Your task to perform on an android device: Search for vintage wall art on Etsy. Image 0: 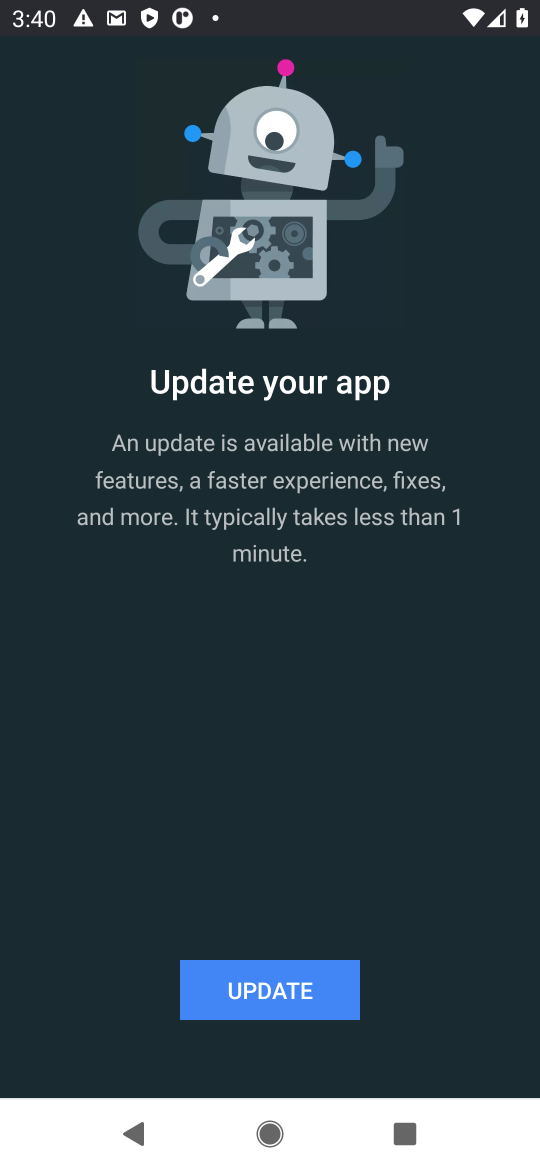
Step 0: press home button
Your task to perform on an android device: Search for vintage wall art on Etsy. Image 1: 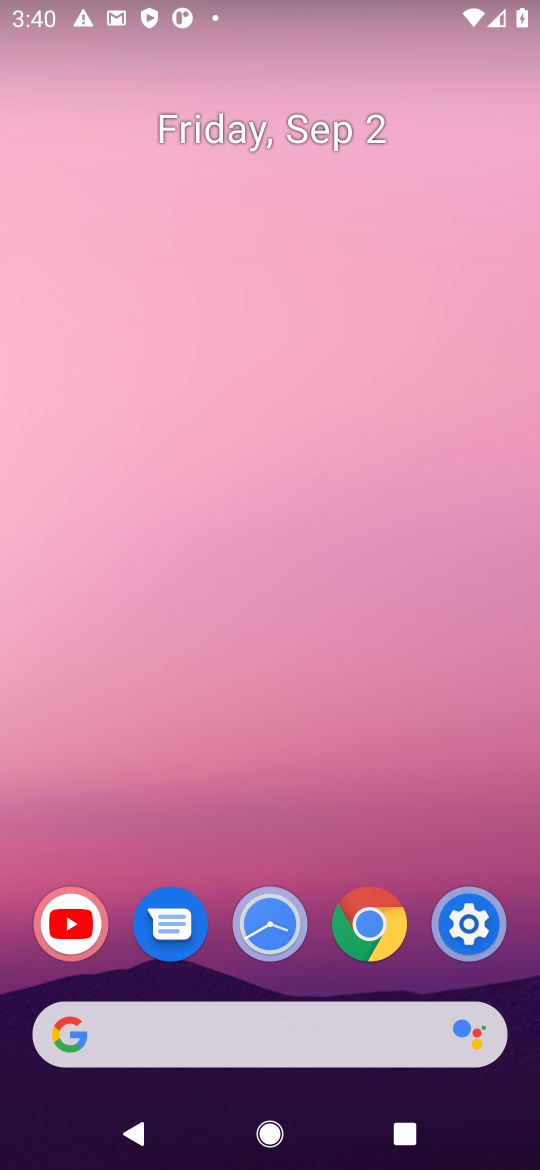
Step 1: click (338, 1040)
Your task to perform on an android device: Search for vintage wall art on Etsy. Image 2: 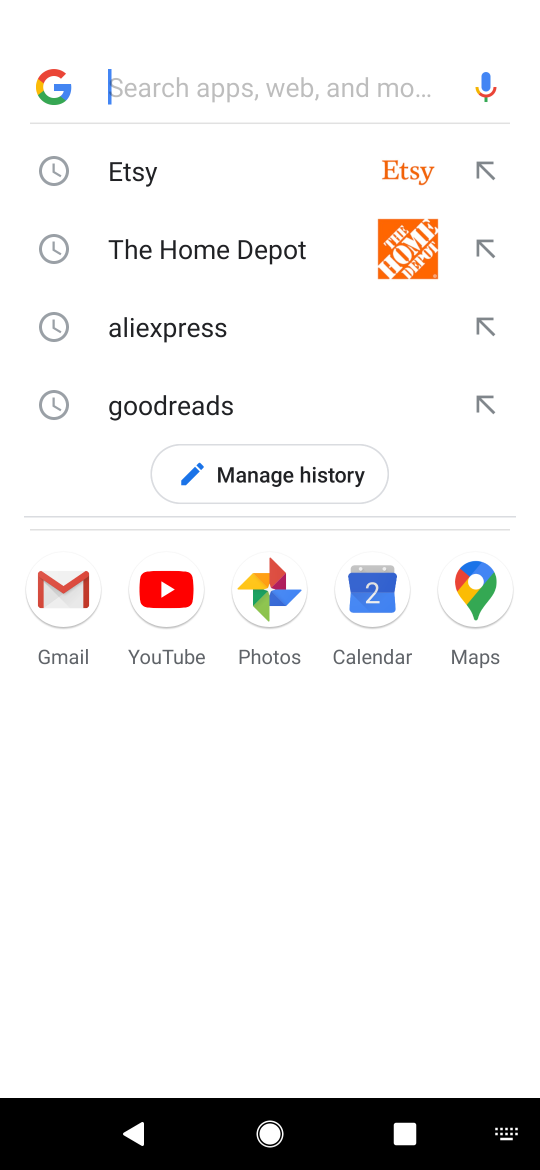
Step 2: press enter
Your task to perform on an android device: Search for vintage wall art on Etsy. Image 3: 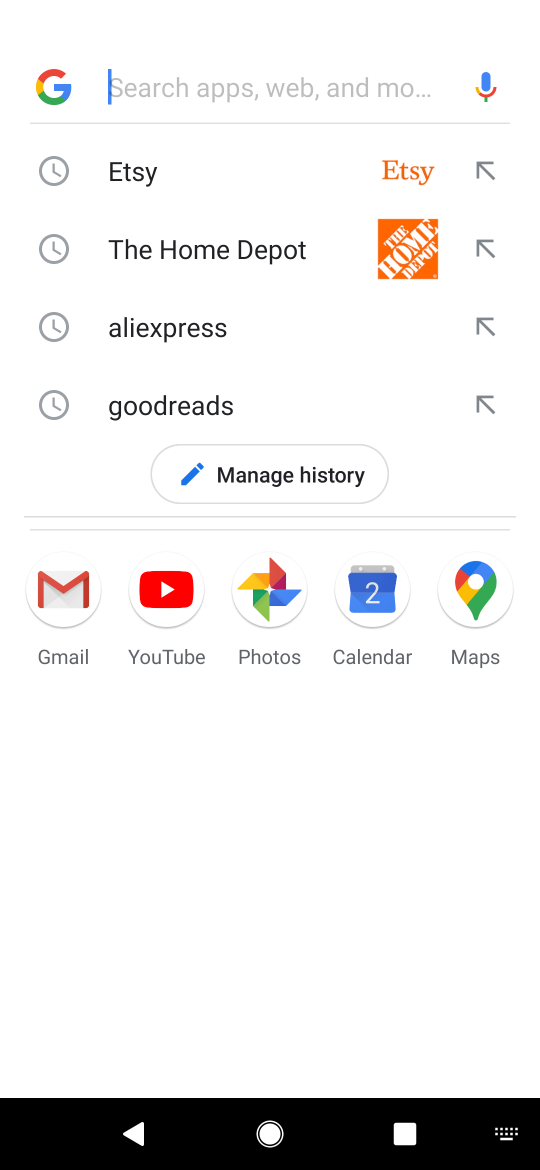
Step 3: type "etsy"
Your task to perform on an android device: Search for vintage wall art on Etsy. Image 4: 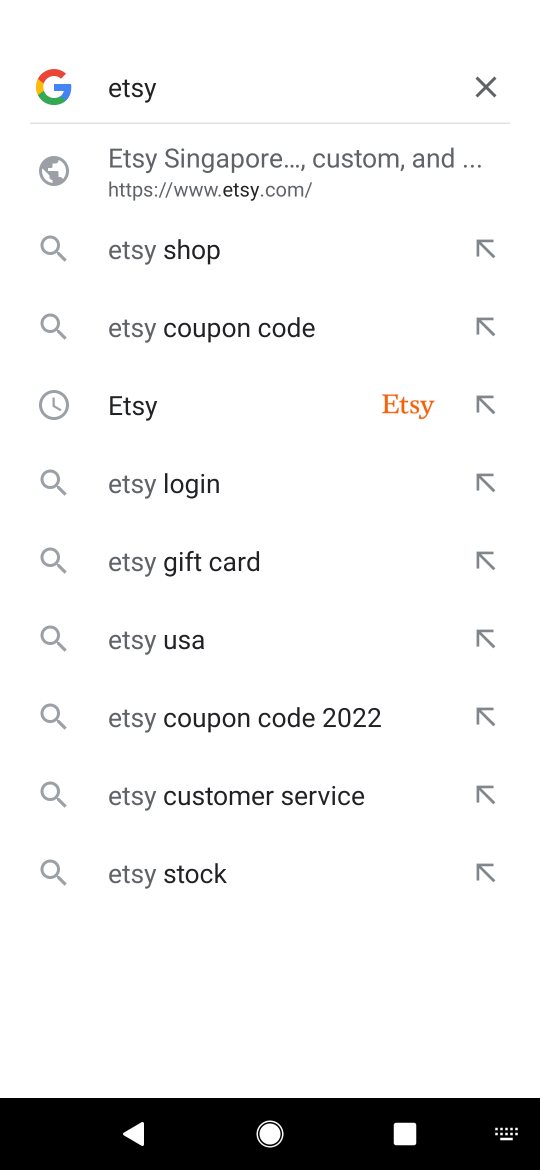
Step 4: click (259, 166)
Your task to perform on an android device: Search for vintage wall art on Etsy. Image 5: 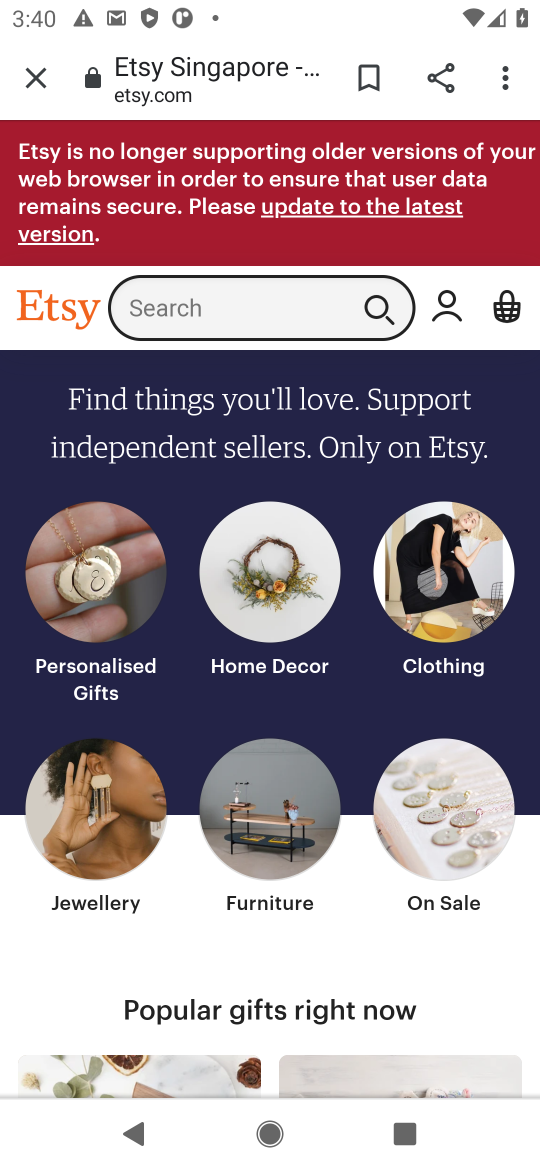
Step 5: click (237, 301)
Your task to perform on an android device: Search for vintage wall art on Etsy. Image 6: 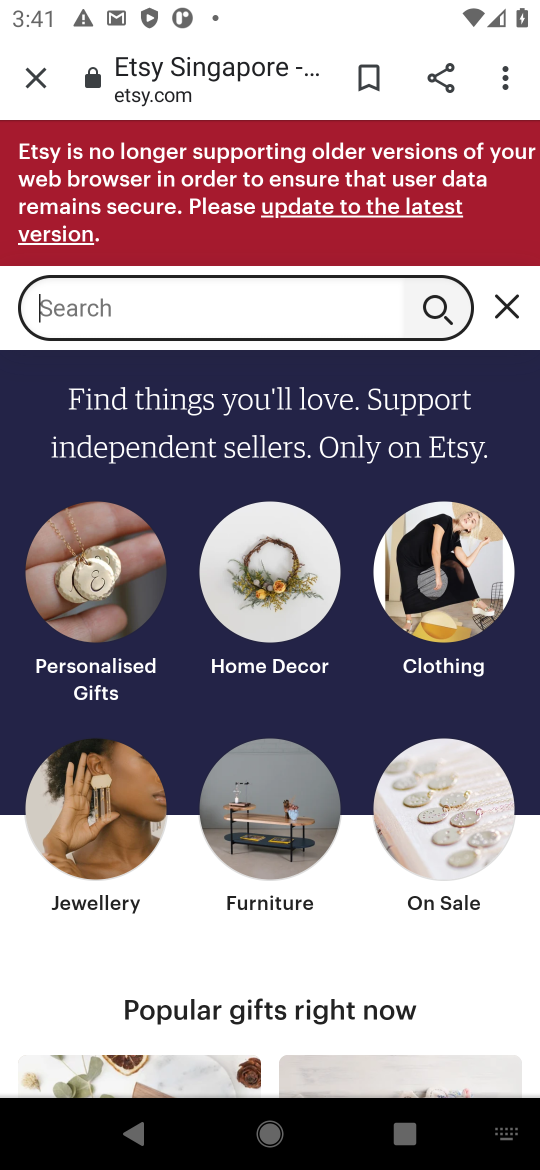
Step 6: type "vintage wall art"
Your task to perform on an android device: Search for vintage wall art on Etsy. Image 7: 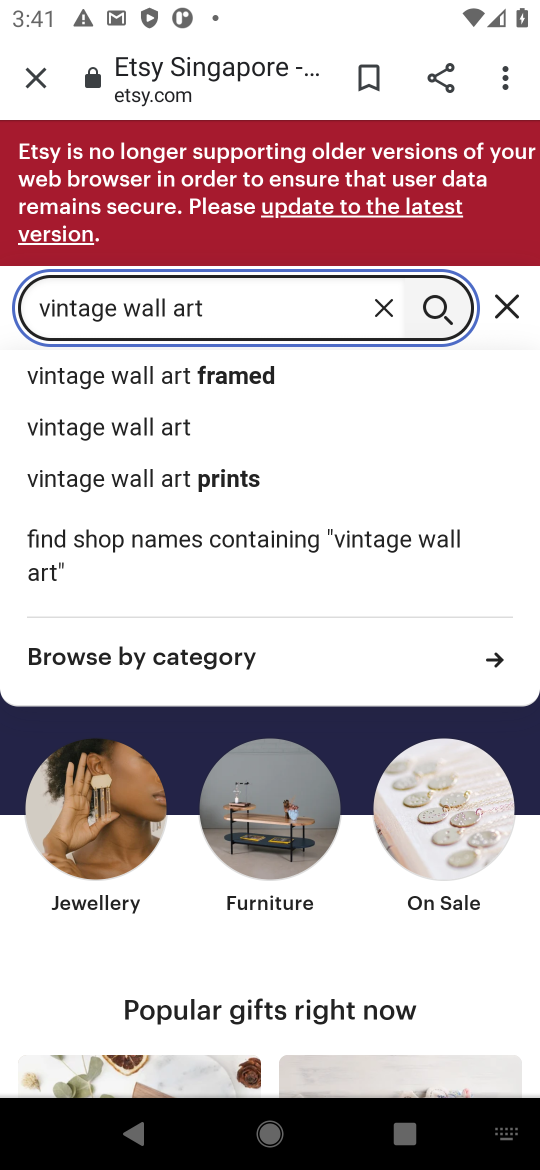
Step 7: click (159, 425)
Your task to perform on an android device: Search for vintage wall art on Etsy. Image 8: 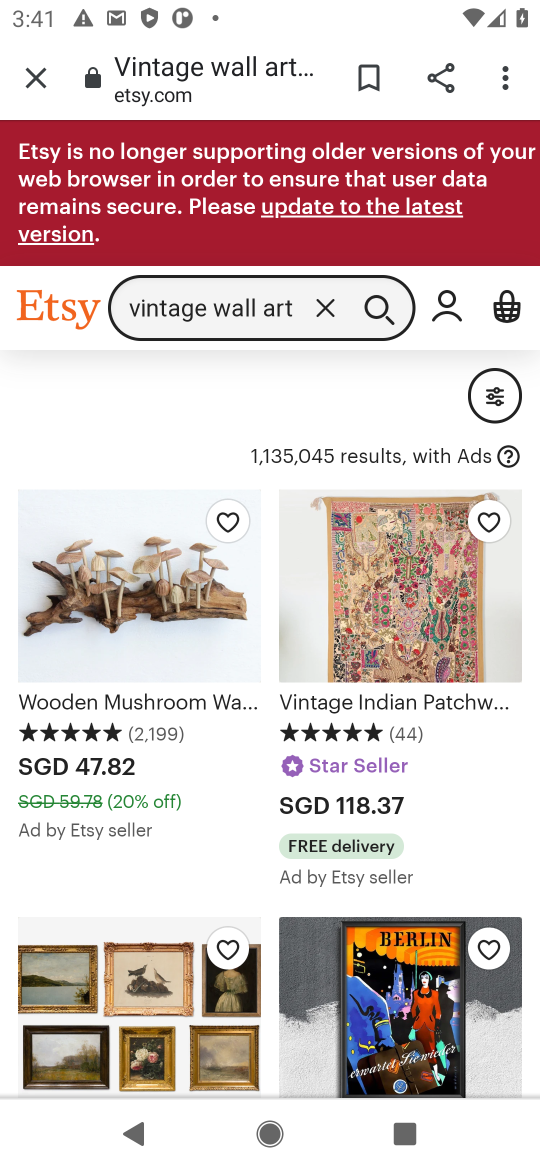
Step 8: task complete